Your task to perform on an android device: turn off notifications settings in the gmail app Image 0: 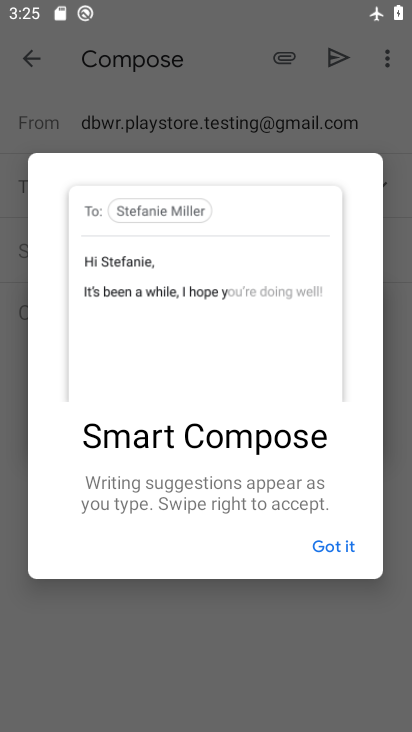
Step 0: press home button
Your task to perform on an android device: turn off notifications settings in the gmail app Image 1: 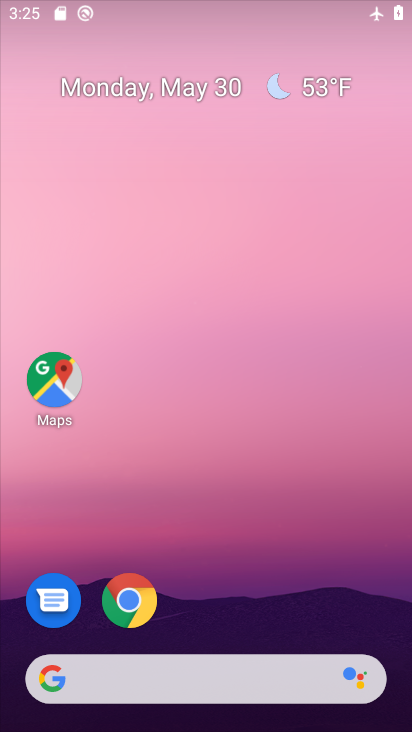
Step 1: drag from (335, 473) to (410, 511)
Your task to perform on an android device: turn off notifications settings in the gmail app Image 2: 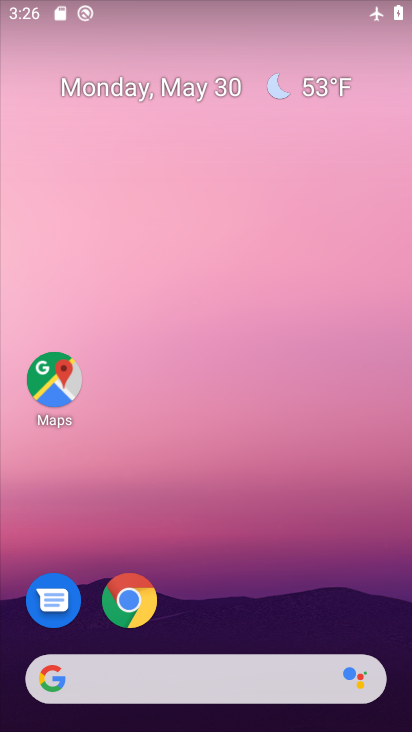
Step 2: drag from (337, 621) to (399, 133)
Your task to perform on an android device: turn off notifications settings in the gmail app Image 3: 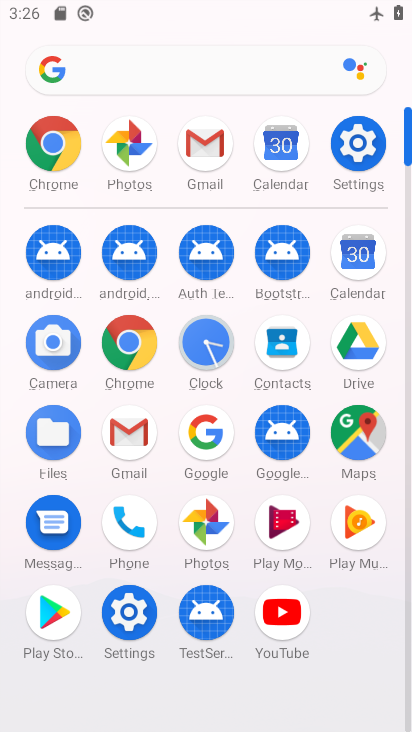
Step 3: click (211, 141)
Your task to perform on an android device: turn off notifications settings in the gmail app Image 4: 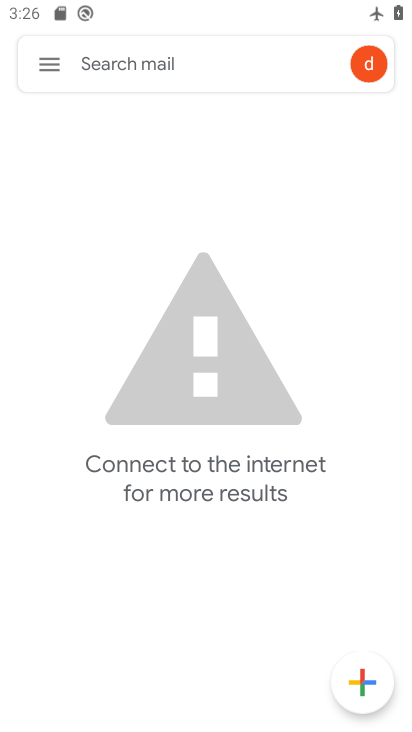
Step 4: click (37, 59)
Your task to perform on an android device: turn off notifications settings in the gmail app Image 5: 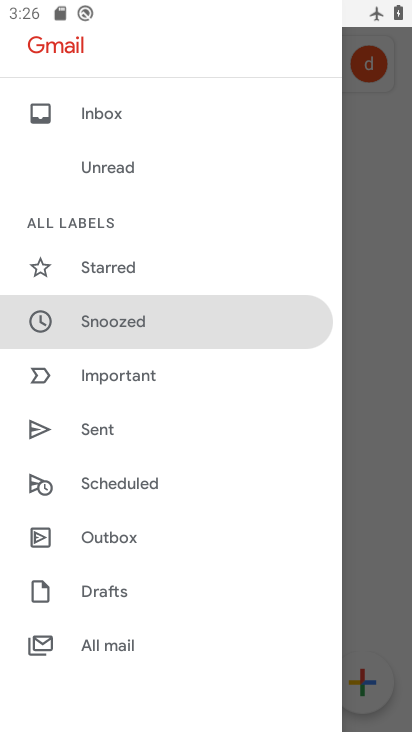
Step 5: drag from (94, 618) to (188, 164)
Your task to perform on an android device: turn off notifications settings in the gmail app Image 6: 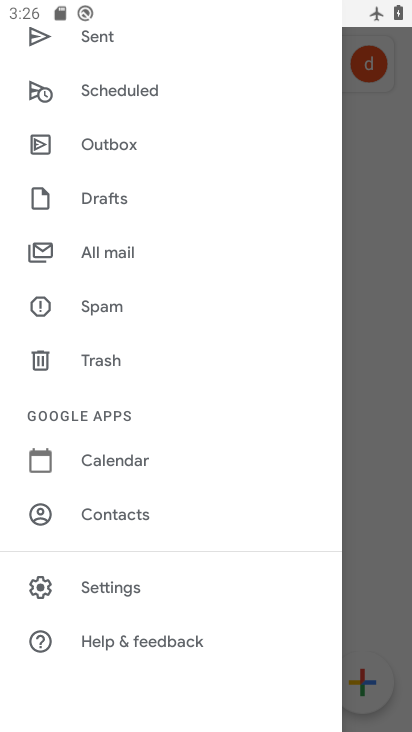
Step 6: click (117, 592)
Your task to perform on an android device: turn off notifications settings in the gmail app Image 7: 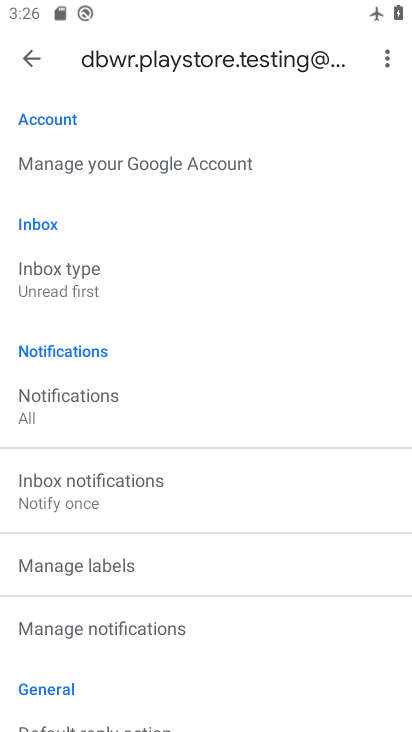
Step 7: click (46, 402)
Your task to perform on an android device: turn off notifications settings in the gmail app Image 8: 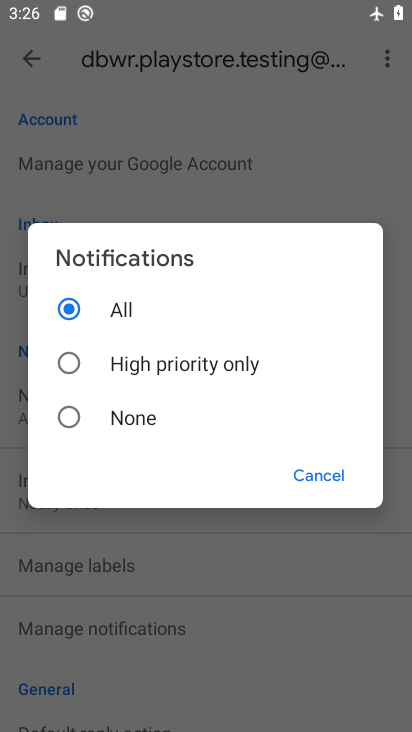
Step 8: click (59, 424)
Your task to perform on an android device: turn off notifications settings in the gmail app Image 9: 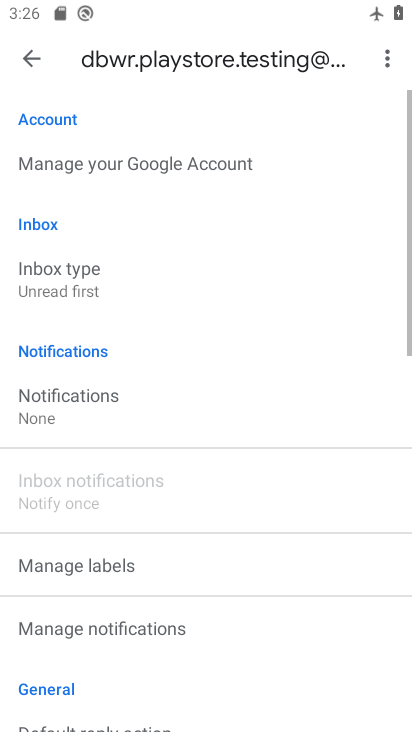
Step 9: task complete